Your task to perform on an android device: Go to accessibility settings Image 0: 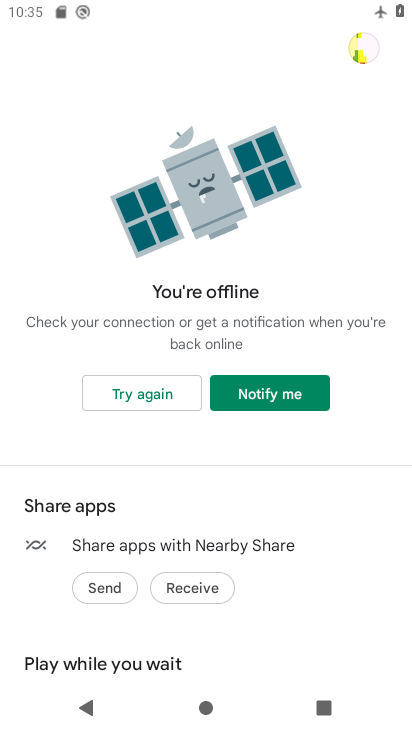
Step 0: press home button
Your task to perform on an android device: Go to accessibility settings Image 1: 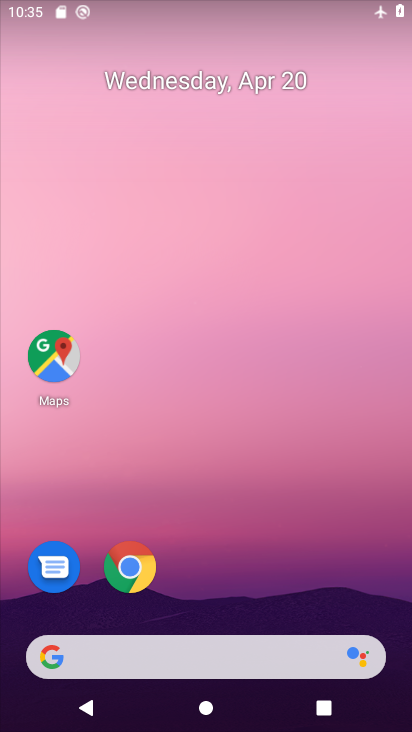
Step 1: drag from (256, 673) to (354, 169)
Your task to perform on an android device: Go to accessibility settings Image 2: 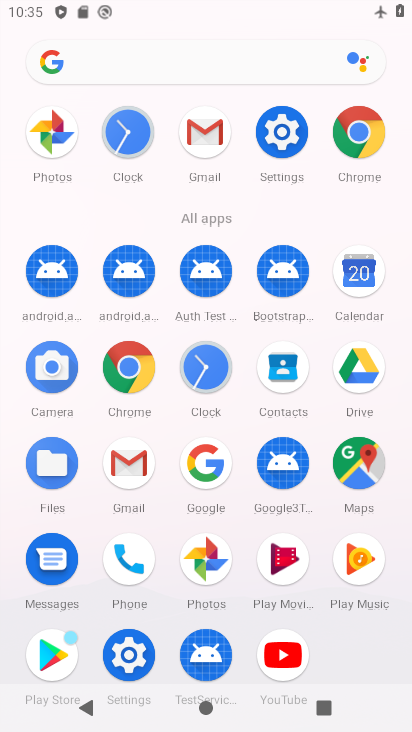
Step 2: click (280, 124)
Your task to perform on an android device: Go to accessibility settings Image 3: 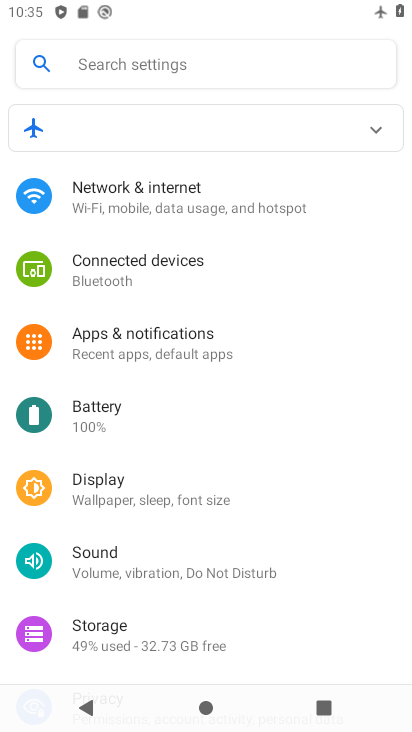
Step 3: drag from (209, 649) to (317, 189)
Your task to perform on an android device: Go to accessibility settings Image 4: 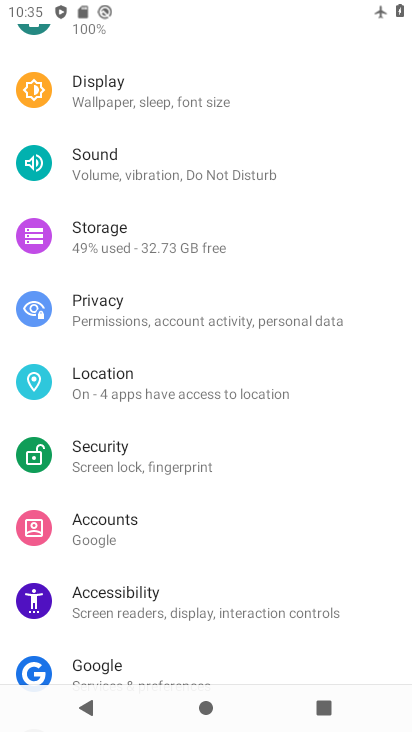
Step 4: click (205, 591)
Your task to perform on an android device: Go to accessibility settings Image 5: 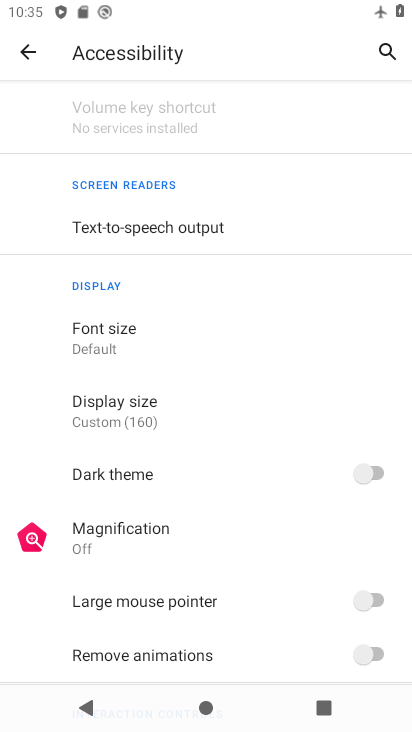
Step 5: task complete